Your task to perform on an android device: check storage Image 0: 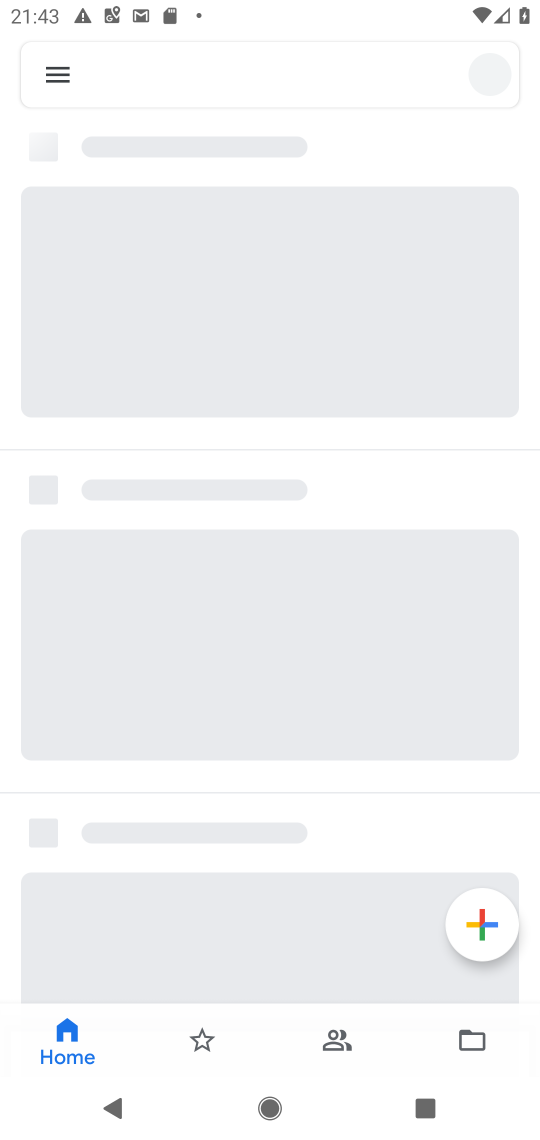
Step 0: press home button
Your task to perform on an android device: check storage Image 1: 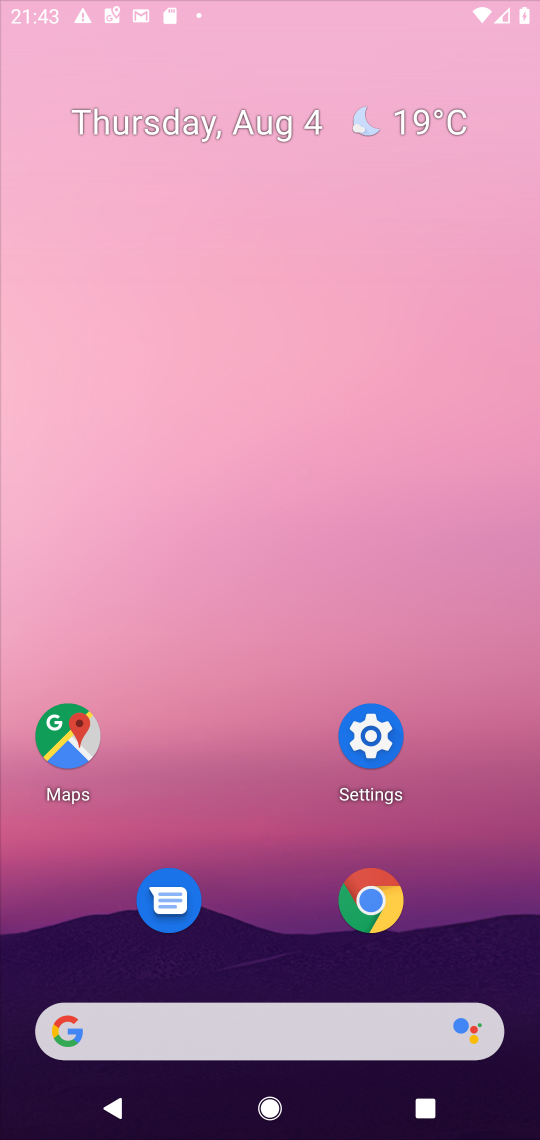
Step 1: press home button
Your task to perform on an android device: check storage Image 2: 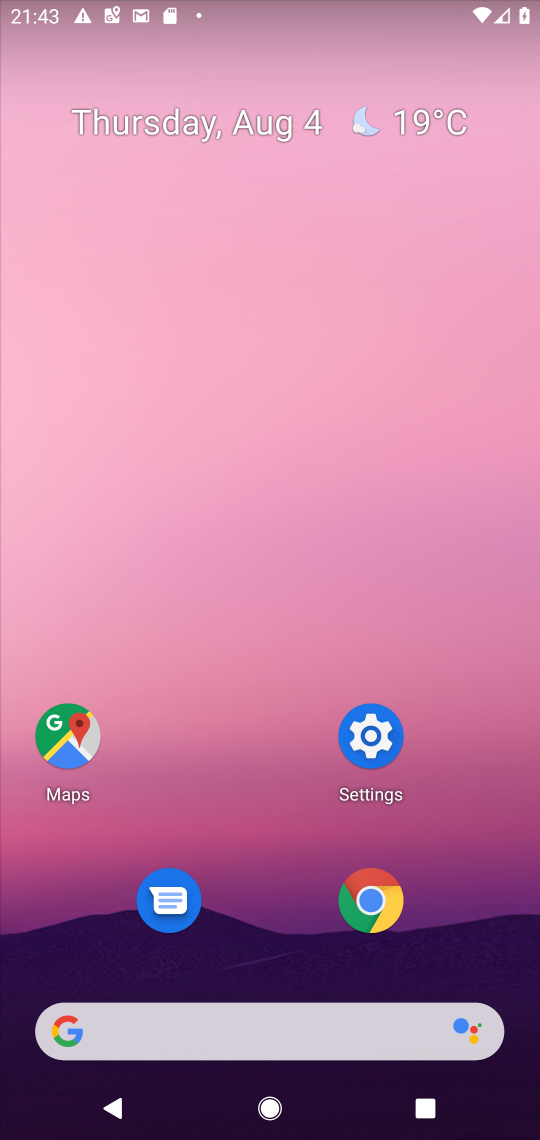
Step 2: drag from (286, 873) to (406, 342)
Your task to perform on an android device: check storage Image 3: 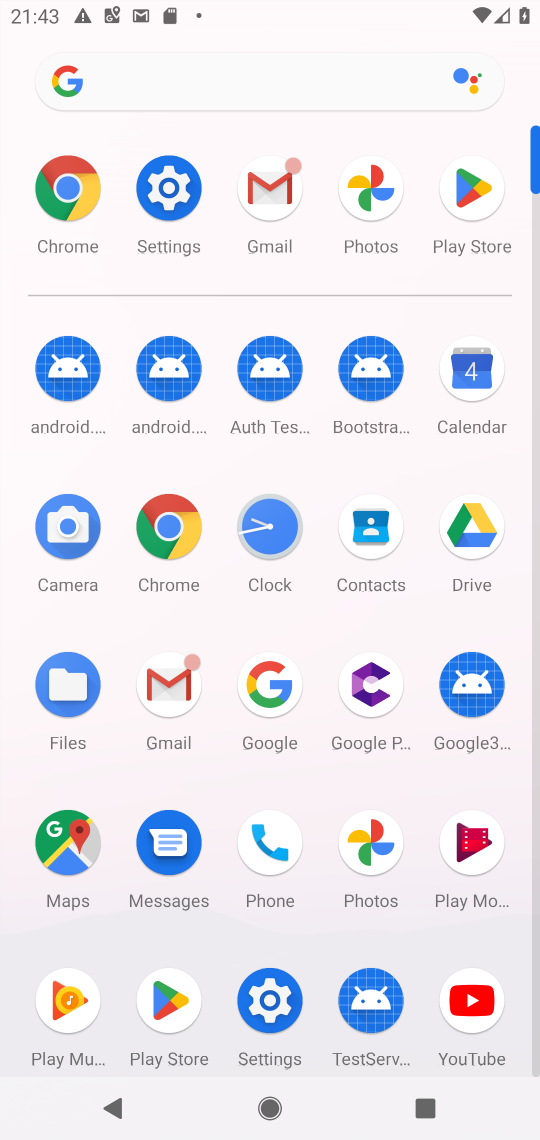
Step 3: click (170, 189)
Your task to perform on an android device: check storage Image 4: 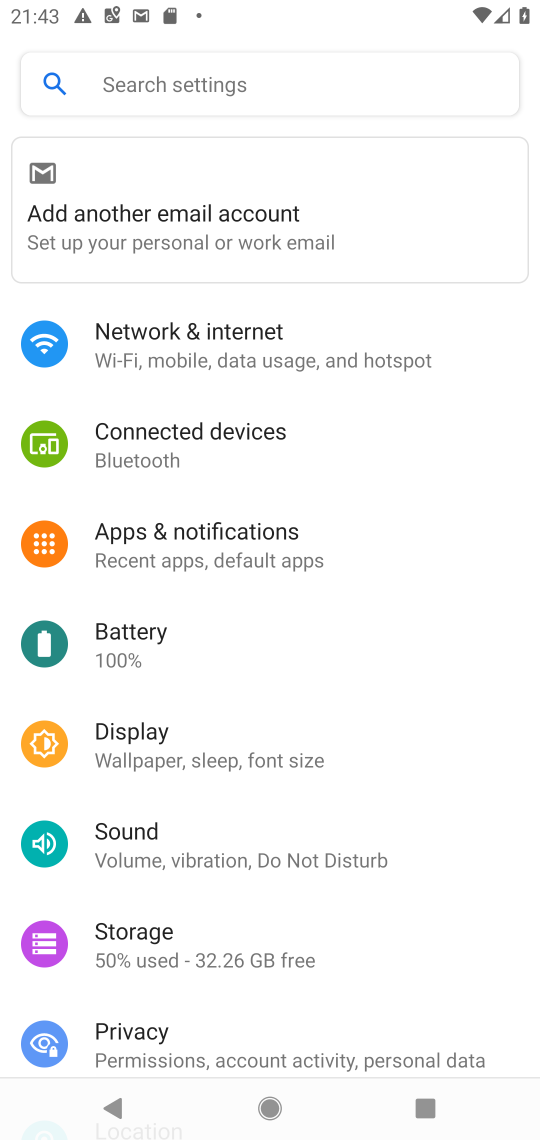
Step 4: click (136, 939)
Your task to perform on an android device: check storage Image 5: 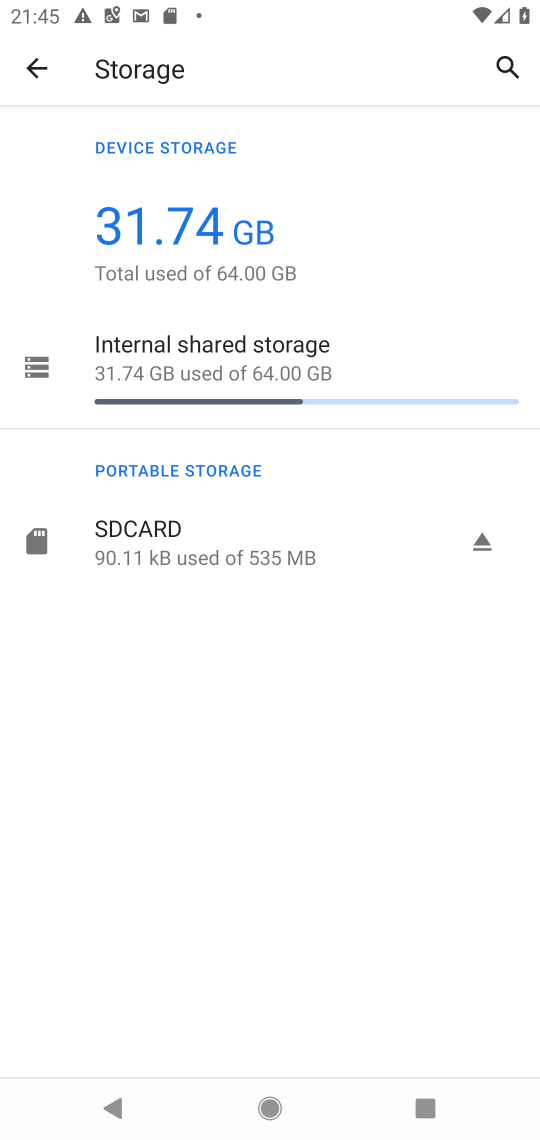
Step 5: task complete